Your task to perform on an android device: Do I have any events this weekend? Image 0: 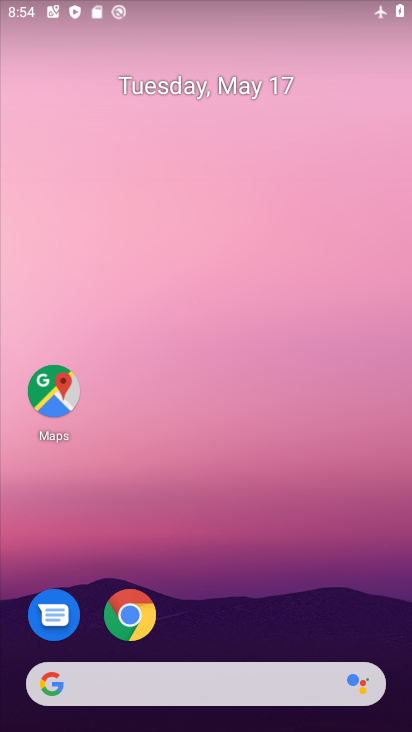
Step 0: drag from (306, 640) to (311, 203)
Your task to perform on an android device: Do I have any events this weekend? Image 1: 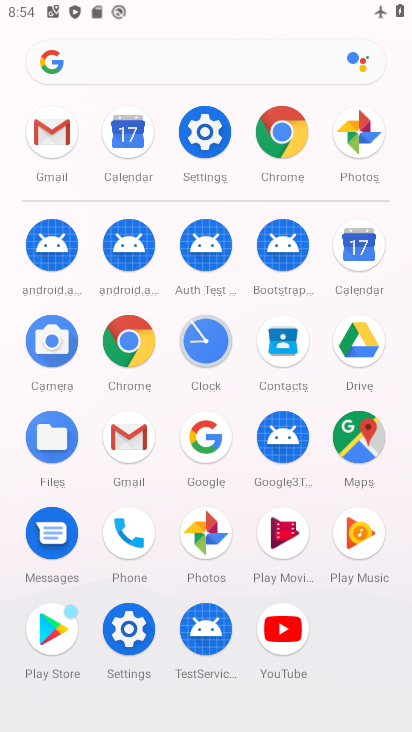
Step 1: click (352, 246)
Your task to perform on an android device: Do I have any events this weekend? Image 2: 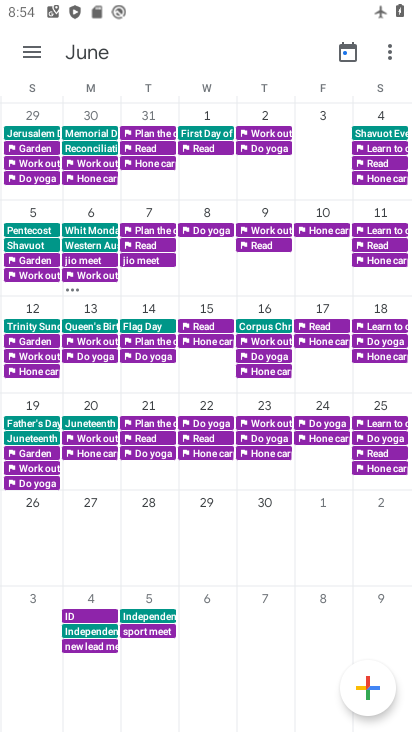
Step 2: drag from (43, 312) to (385, 362)
Your task to perform on an android device: Do I have any events this weekend? Image 3: 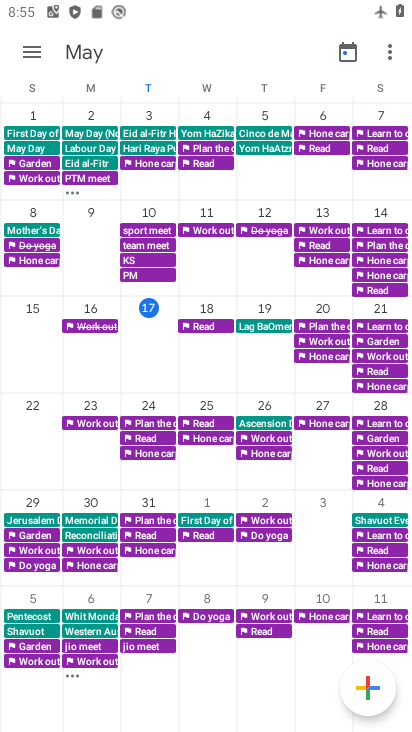
Step 3: click (35, 49)
Your task to perform on an android device: Do I have any events this weekend? Image 4: 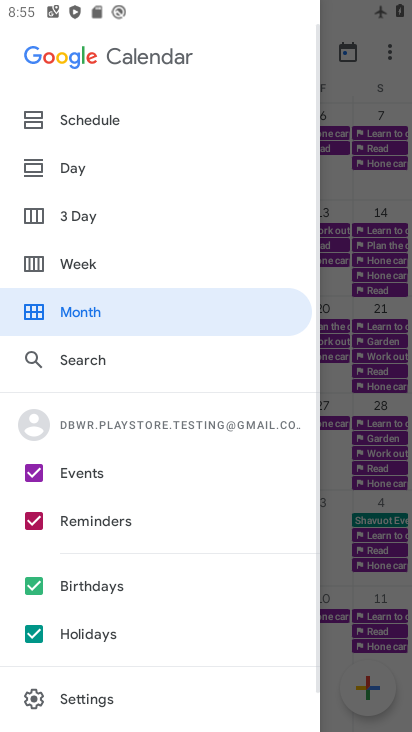
Step 4: click (96, 260)
Your task to perform on an android device: Do I have any events this weekend? Image 5: 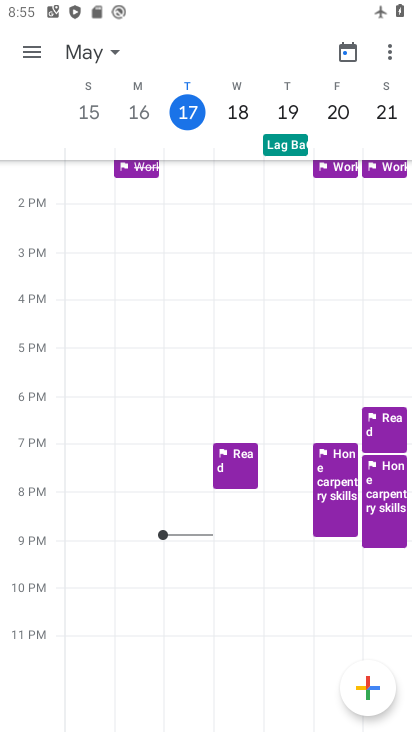
Step 5: task complete